Your task to perform on an android device: Go to Reddit.com Image 0: 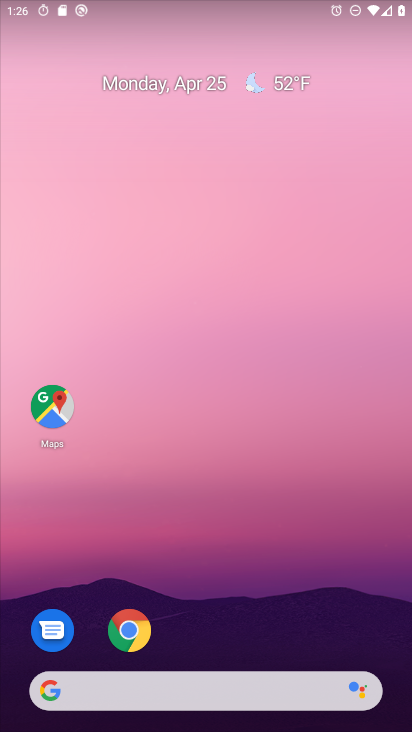
Step 0: click (186, 684)
Your task to perform on an android device: Go to Reddit.com Image 1: 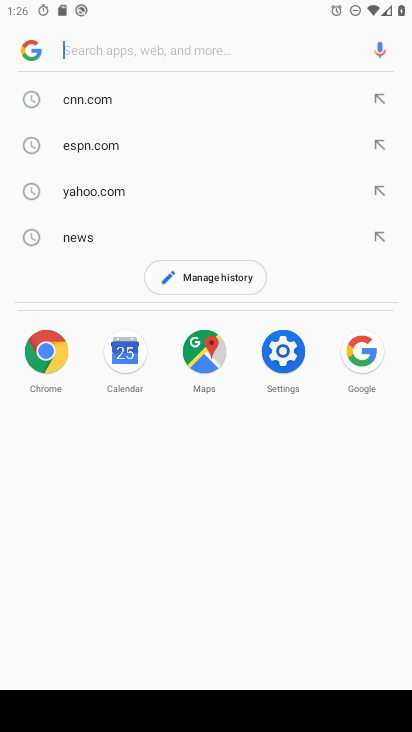
Step 1: click (218, 34)
Your task to perform on an android device: Go to Reddit.com Image 2: 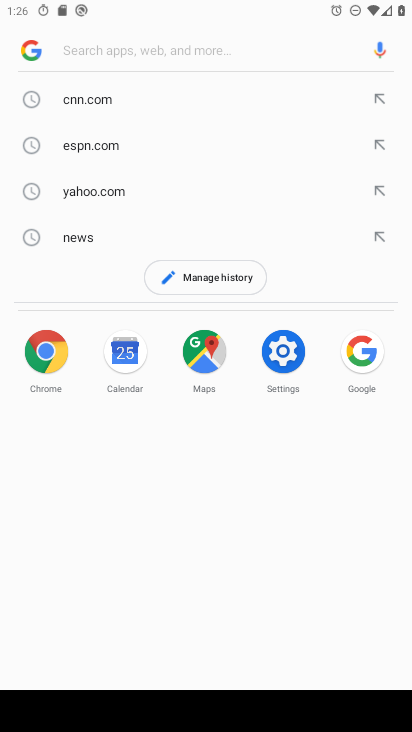
Step 2: type "reddit.com"
Your task to perform on an android device: Go to Reddit.com Image 3: 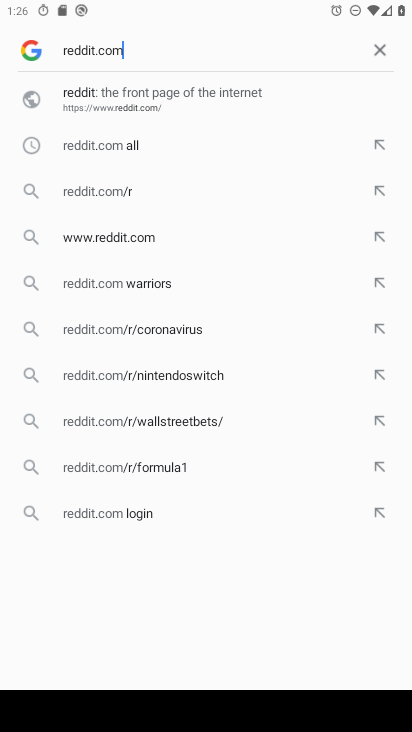
Step 3: click (102, 52)
Your task to perform on an android device: Go to Reddit.com Image 4: 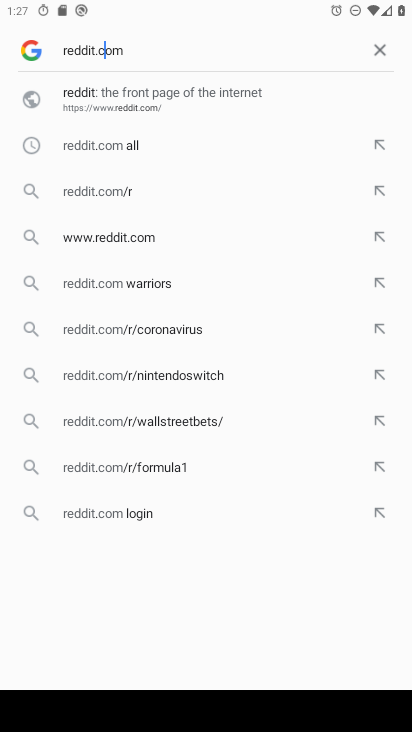
Step 4: click (187, 101)
Your task to perform on an android device: Go to Reddit.com Image 5: 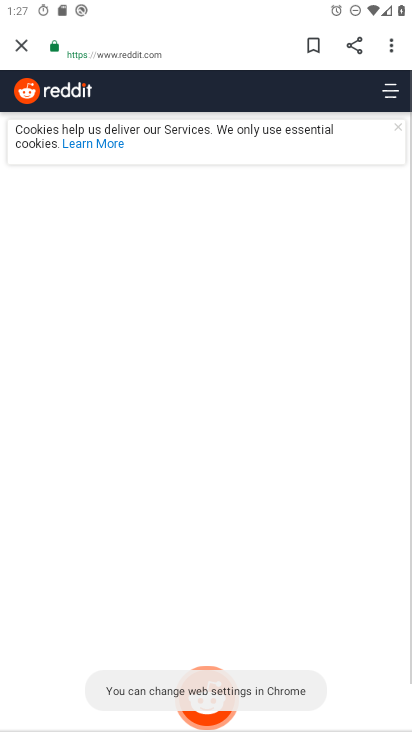
Step 5: task complete